Your task to perform on an android device: Open the map Image 0: 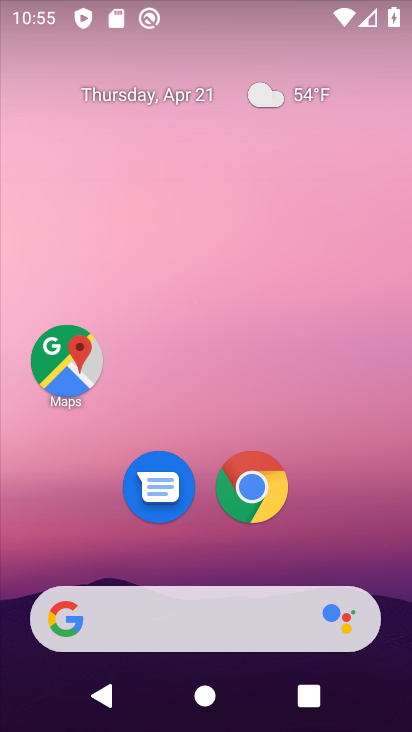
Step 0: drag from (358, 553) to (392, 123)
Your task to perform on an android device: Open the map Image 1: 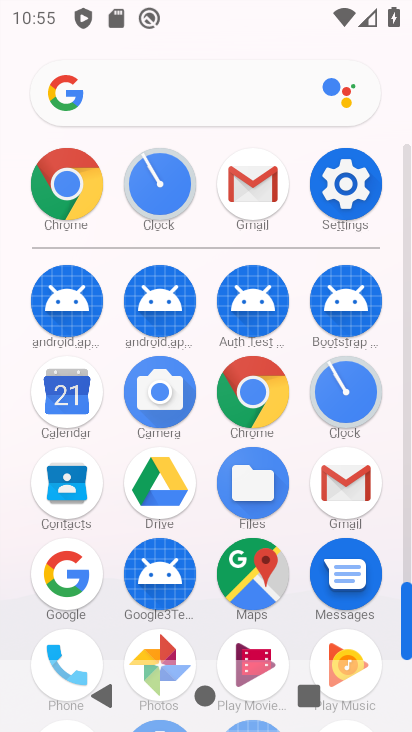
Step 1: click (256, 589)
Your task to perform on an android device: Open the map Image 2: 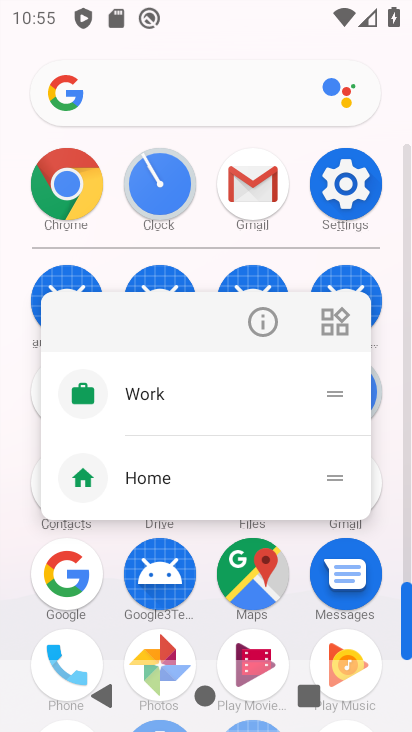
Step 2: click (260, 584)
Your task to perform on an android device: Open the map Image 3: 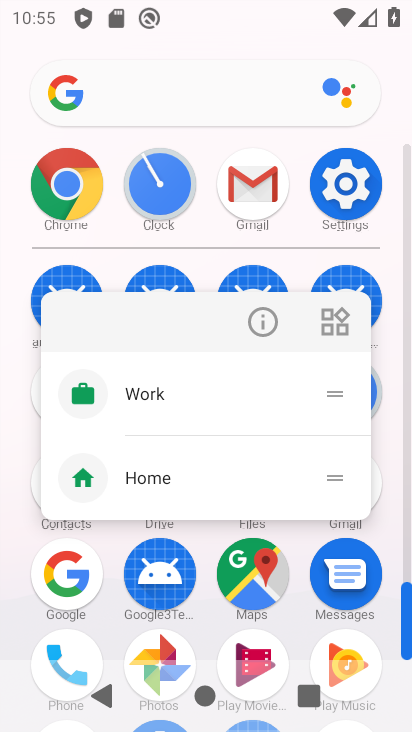
Step 3: click (262, 589)
Your task to perform on an android device: Open the map Image 4: 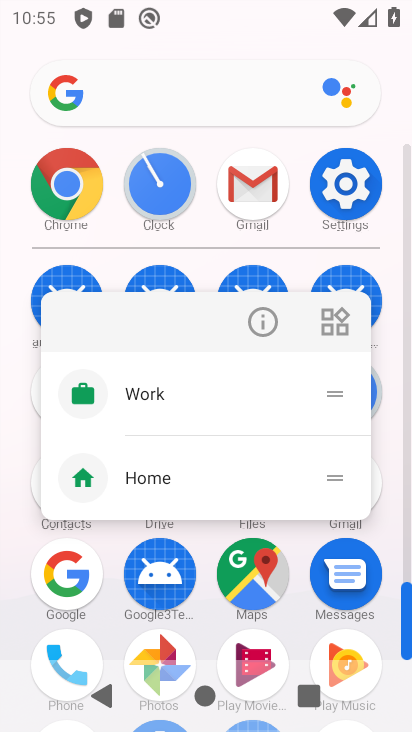
Step 4: click (257, 579)
Your task to perform on an android device: Open the map Image 5: 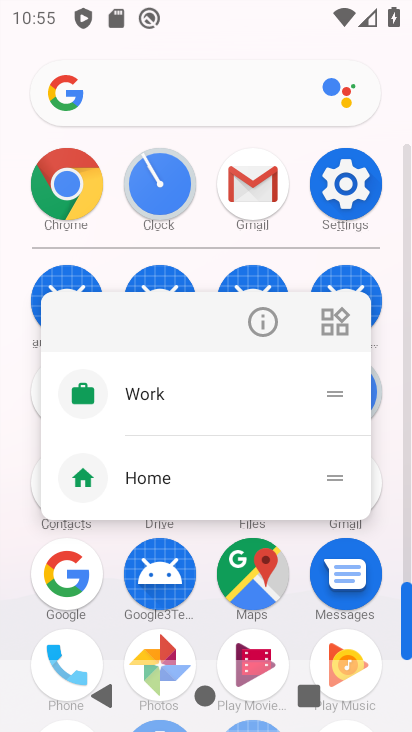
Step 5: click (240, 596)
Your task to perform on an android device: Open the map Image 6: 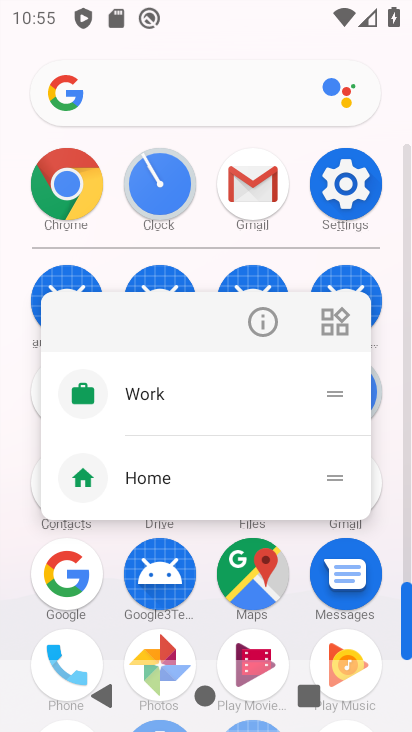
Step 6: click (241, 595)
Your task to perform on an android device: Open the map Image 7: 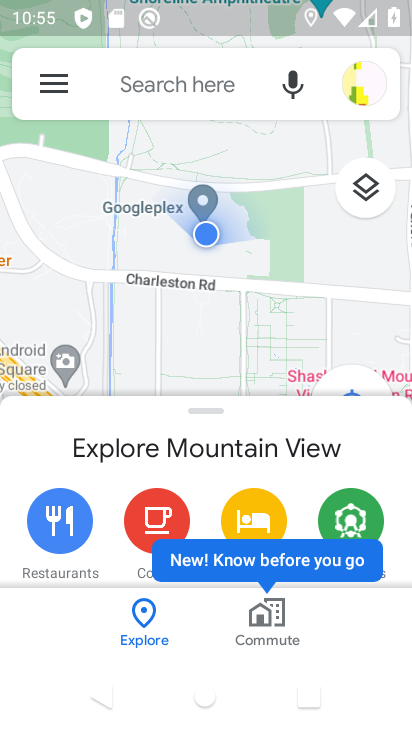
Step 7: task complete